Your task to perform on an android device: check storage Image 0: 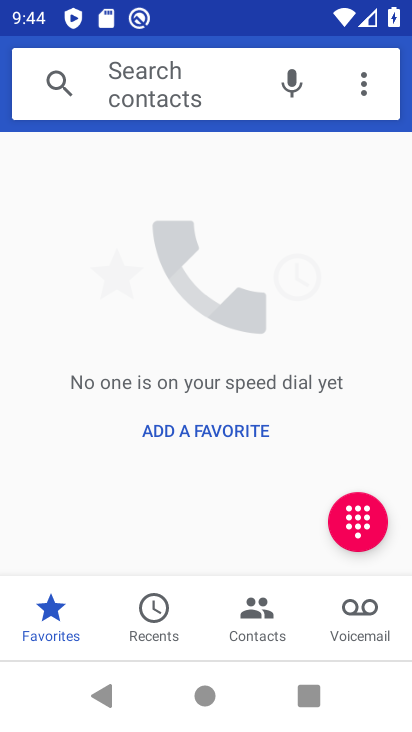
Step 0: press home button
Your task to perform on an android device: check storage Image 1: 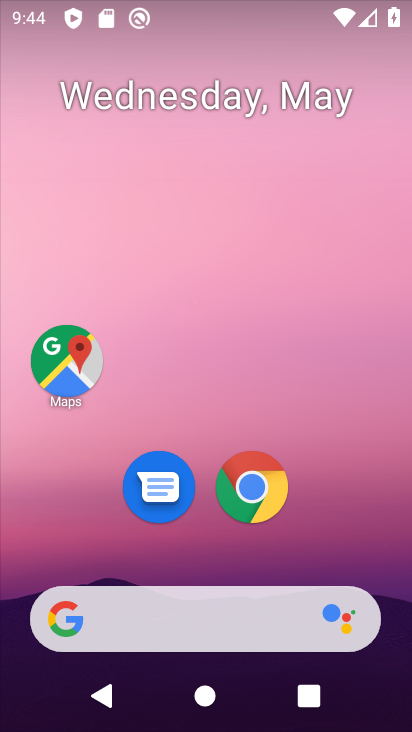
Step 1: drag from (215, 624) to (184, 63)
Your task to perform on an android device: check storage Image 2: 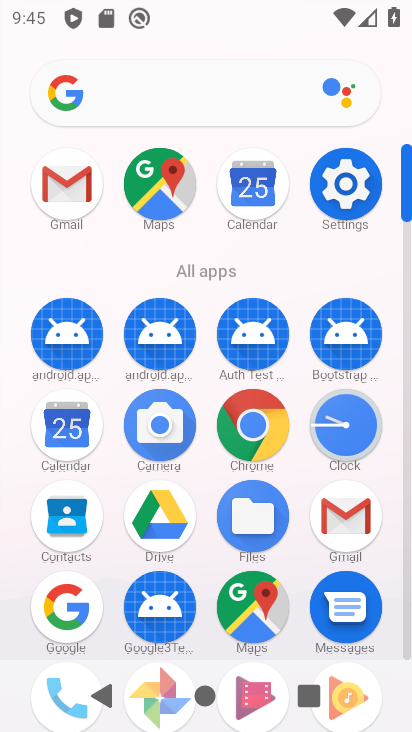
Step 2: click (328, 191)
Your task to perform on an android device: check storage Image 3: 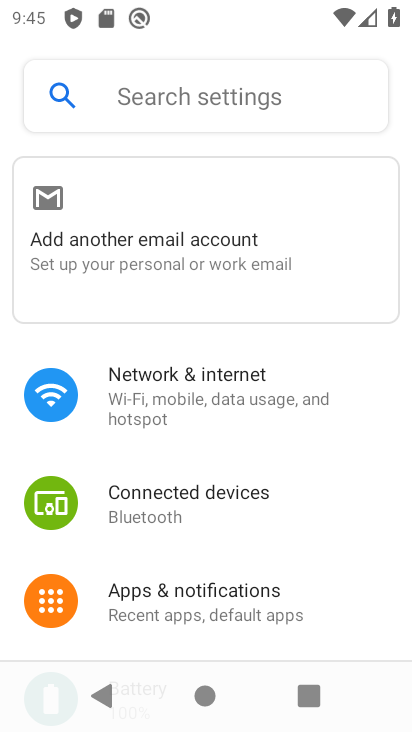
Step 3: click (130, 89)
Your task to perform on an android device: check storage Image 4: 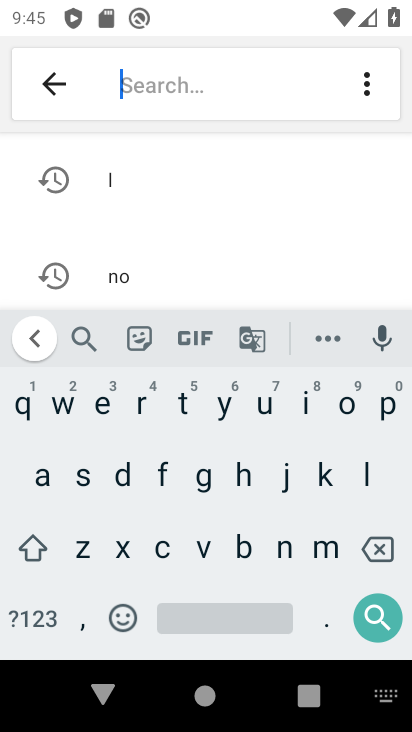
Step 4: click (85, 475)
Your task to perform on an android device: check storage Image 5: 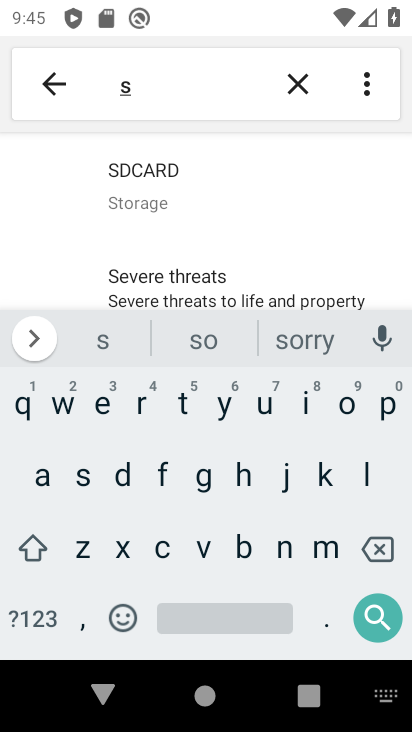
Step 5: click (176, 414)
Your task to perform on an android device: check storage Image 6: 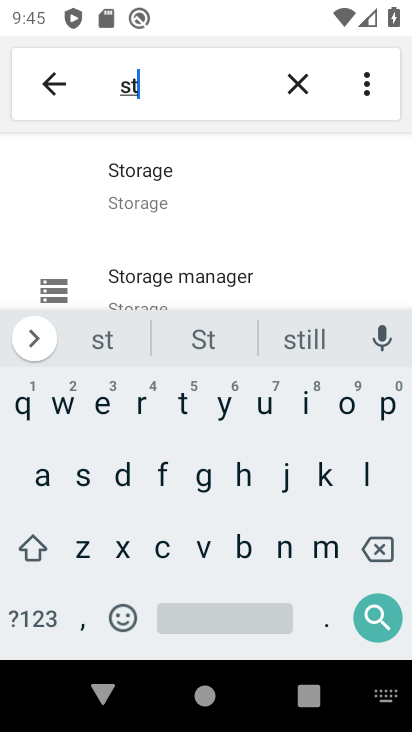
Step 6: click (184, 201)
Your task to perform on an android device: check storage Image 7: 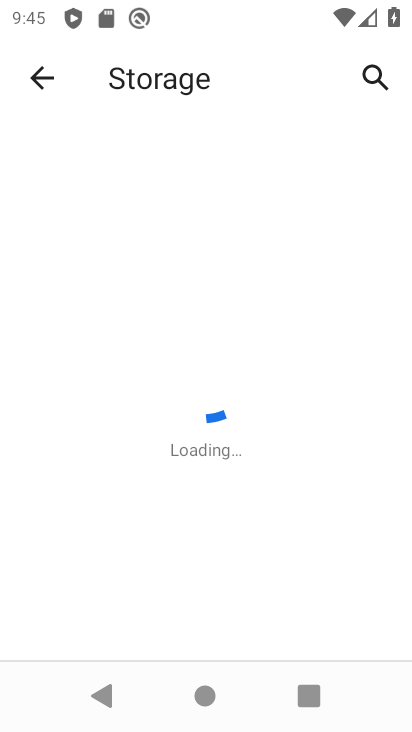
Step 7: task complete